Your task to perform on an android device: Go to Yahoo.com Image 0: 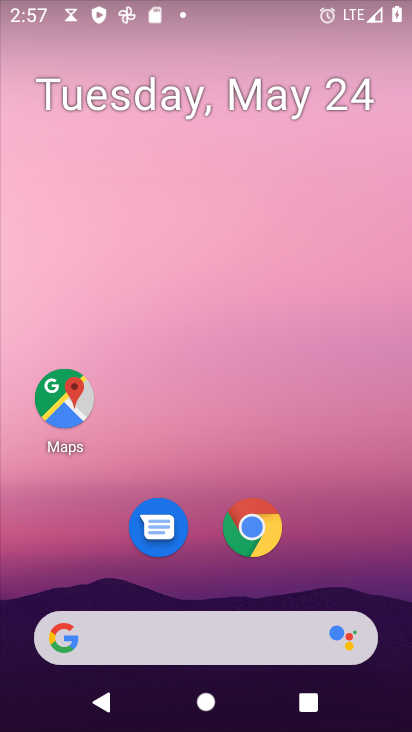
Step 0: press home button
Your task to perform on an android device: Go to Yahoo.com Image 1: 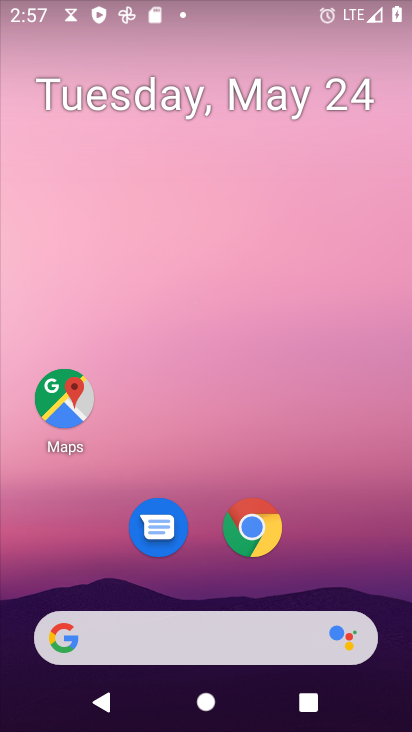
Step 1: click (266, 527)
Your task to perform on an android device: Go to Yahoo.com Image 2: 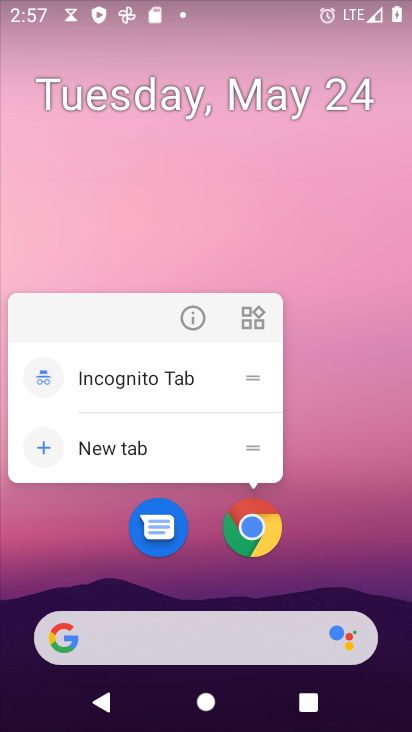
Step 2: click (249, 534)
Your task to perform on an android device: Go to Yahoo.com Image 3: 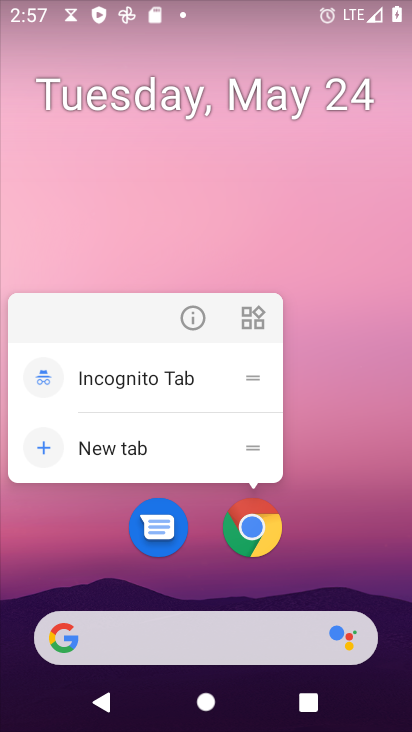
Step 3: click (250, 541)
Your task to perform on an android device: Go to Yahoo.com Image 4: 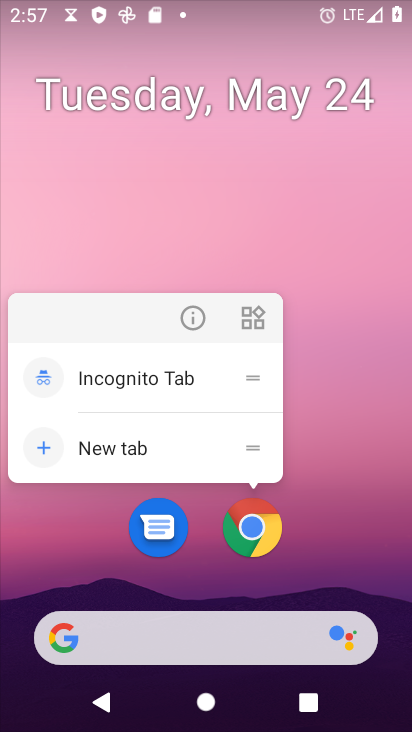
Step 4: click (258, 539)
Your task to perform on an android device: Go to Yahoo.com Image 5: 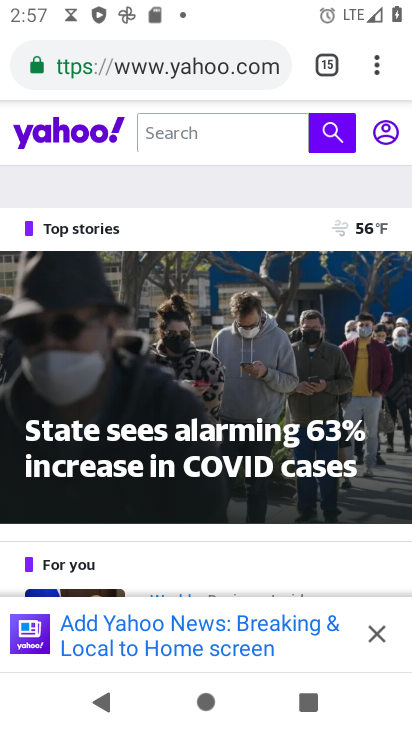
Step 5: task complete